Your task to perform on an android device: empty trash in the gmail app Image 0: 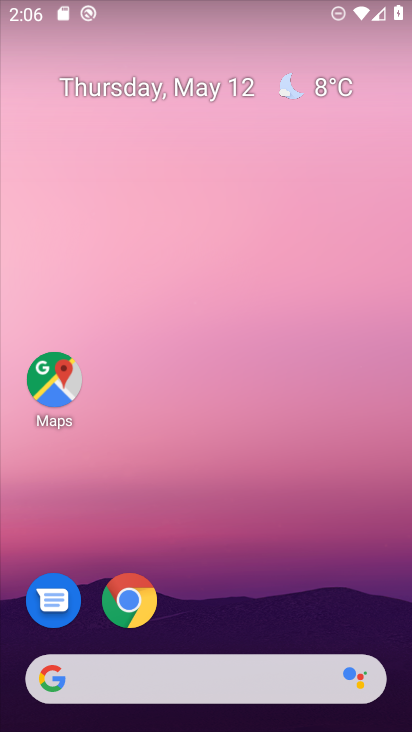
Step 0: drag from (190, 727) to (188, 113)
Your task to perform on an android device: empty trash in the gmail app Image 1: 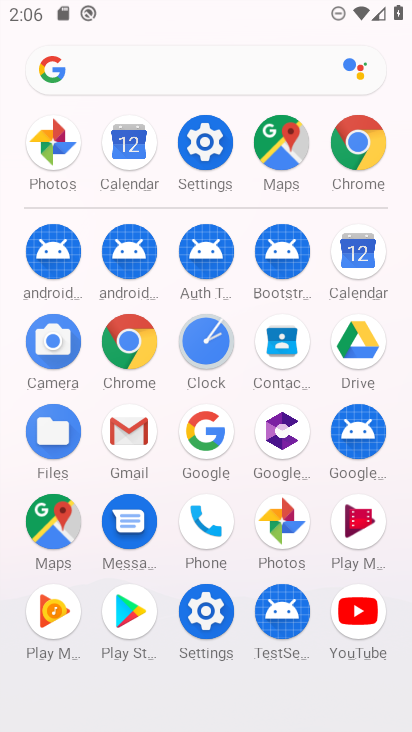
Step 1: click (136, 426)
Your task to perform on an android device: empty trash in the gmail app Image 2: 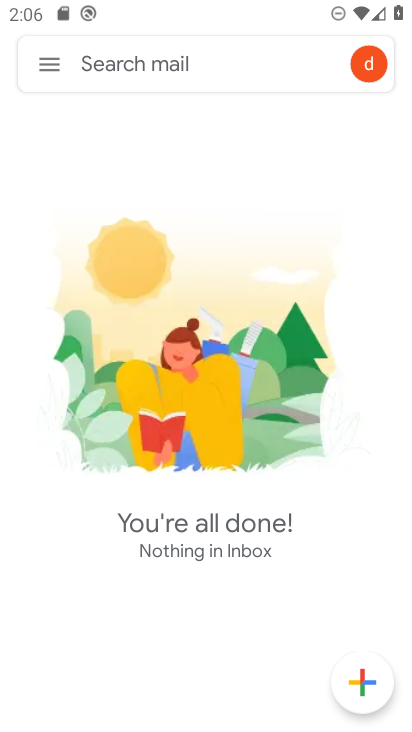
Step 2: click (50, 65)
Your task to perform on an android device: empty trash in the gmail app Image 3: 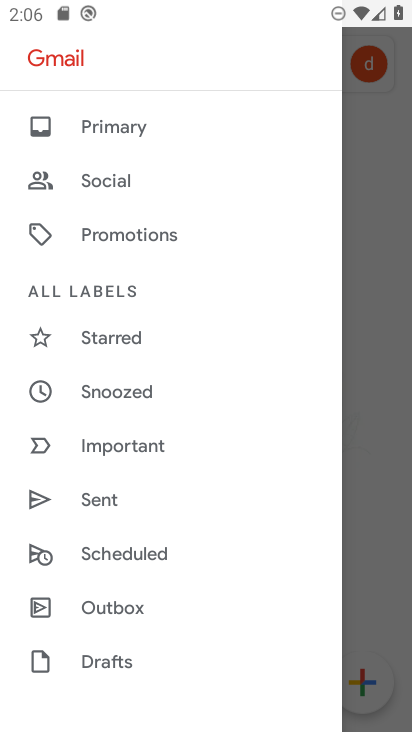
Step 3: drag from (115, 638) to (139, 364)
Your task to perform on an android device: empty trash in the gmail app Image 4: 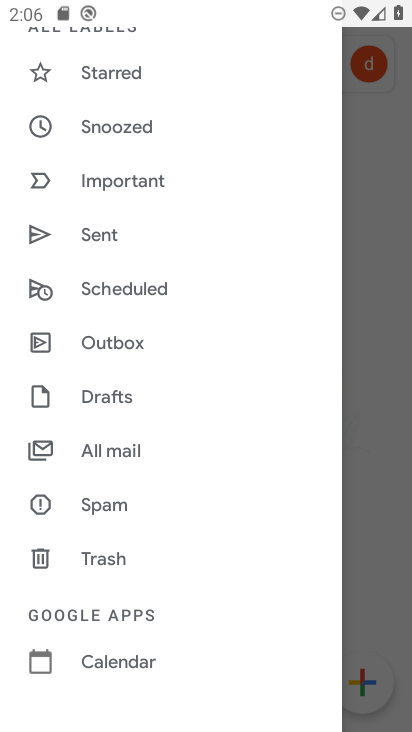
Step 4: click (106, 554)
Your task to perform on an android device: empty trash in the gmail app Image 5: 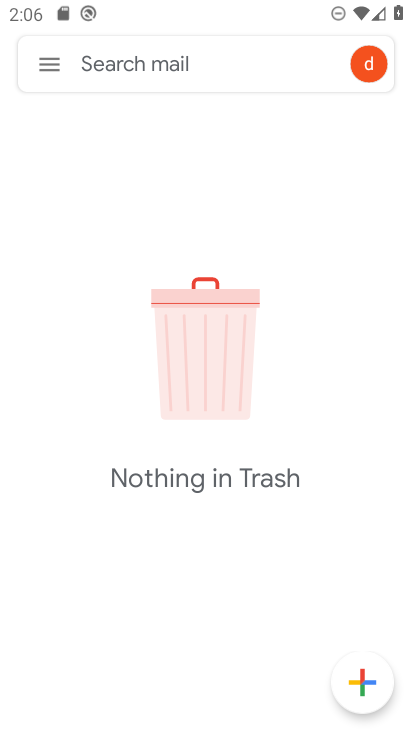
Step 5: task complete